Your task to perform on an android device: toggle airplane mode Image 0: 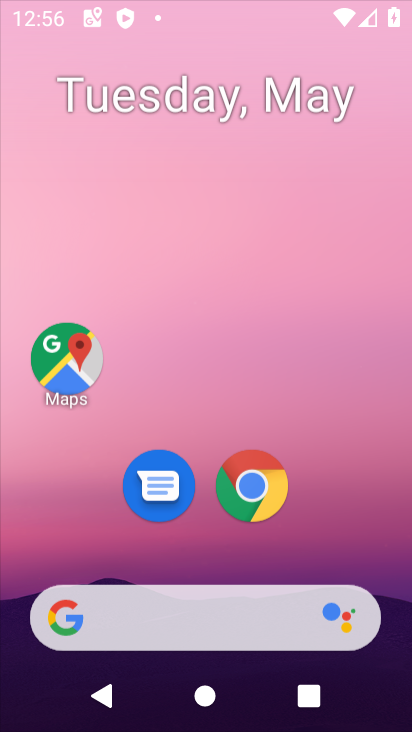
Step 0: press home button
Your task to perform on an android device: toggle airplane mode Image 1: 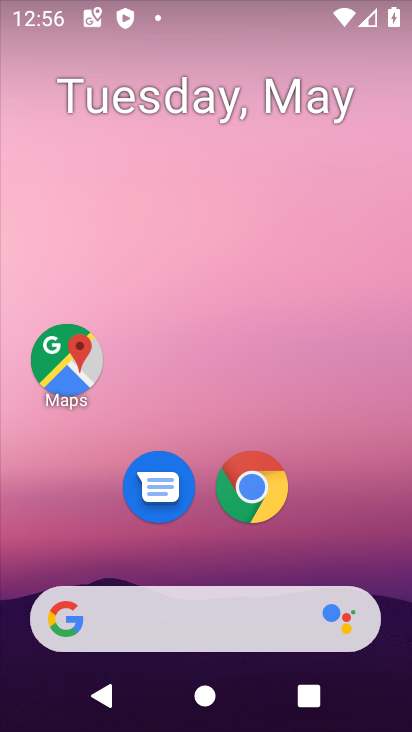
Step 1: drag from (326, 408) to (285, 55)
Your task to perform on an android device: toggle airplane mode Image 2: 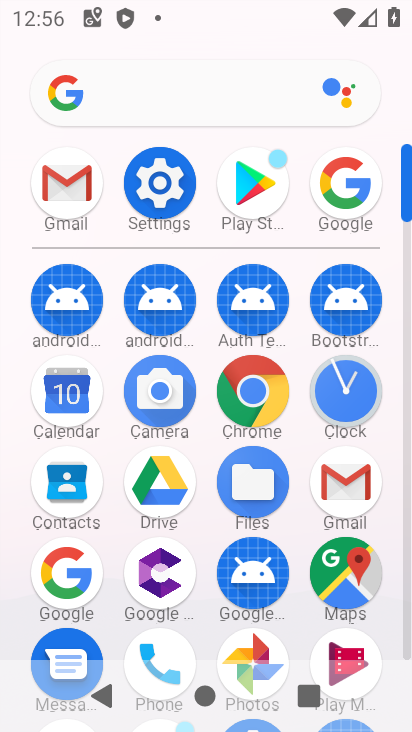
Step 2: click (170, 179)
Your task to perform on an android device: toggle airplane mode Image 3: 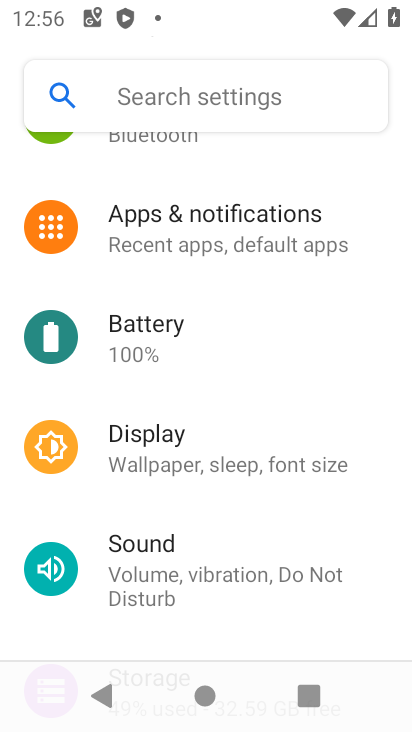
Step 3: drag from (285, 185) to (312, 477)
Your task to perform on an android device: toggle airplane mode Image 4: 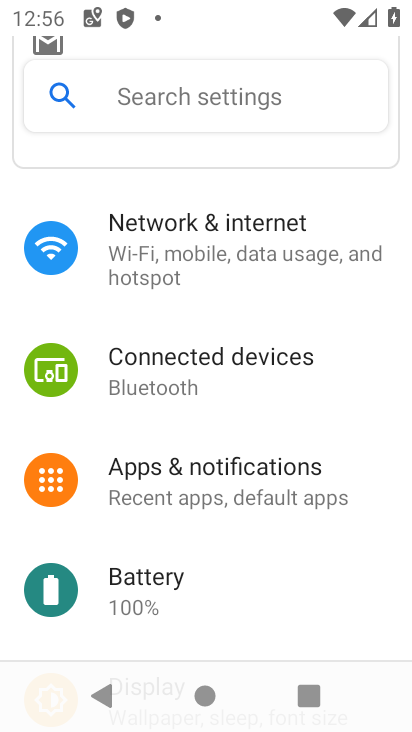
Step 4: click (255, 248)
Your task to perform on an android device: toggle airplane mode Image 5: 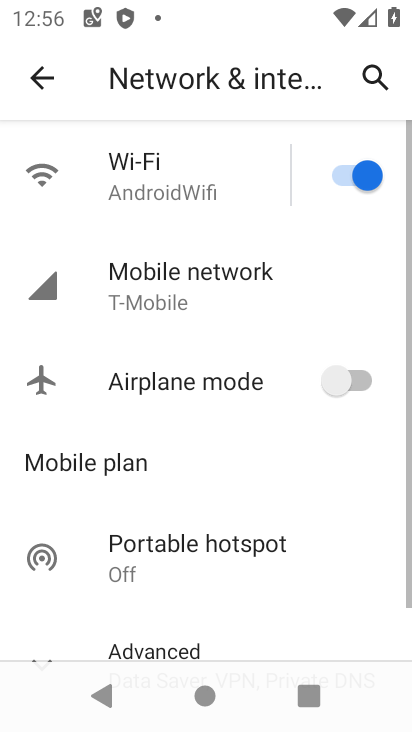
Step 5: click (357, 378)
Your task to perform on an android device: toggle airplane mode Image 6: 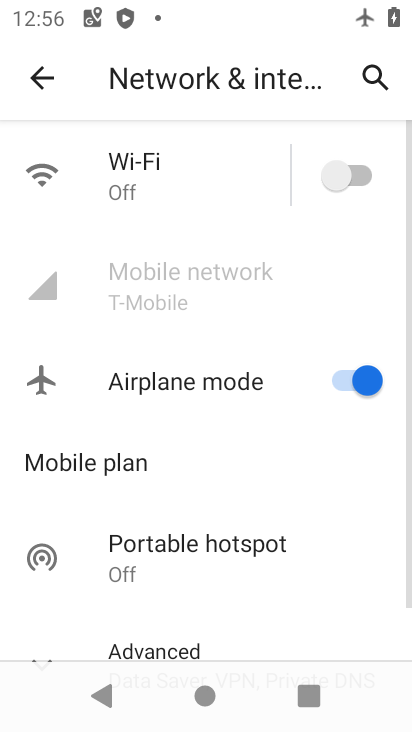
Step 6: task complete